Your task to perform on an android device: Clear all items from cart on bestbuy.com. Add acer predator to the cart on bestbuy.com, then select checkout. Image 0: 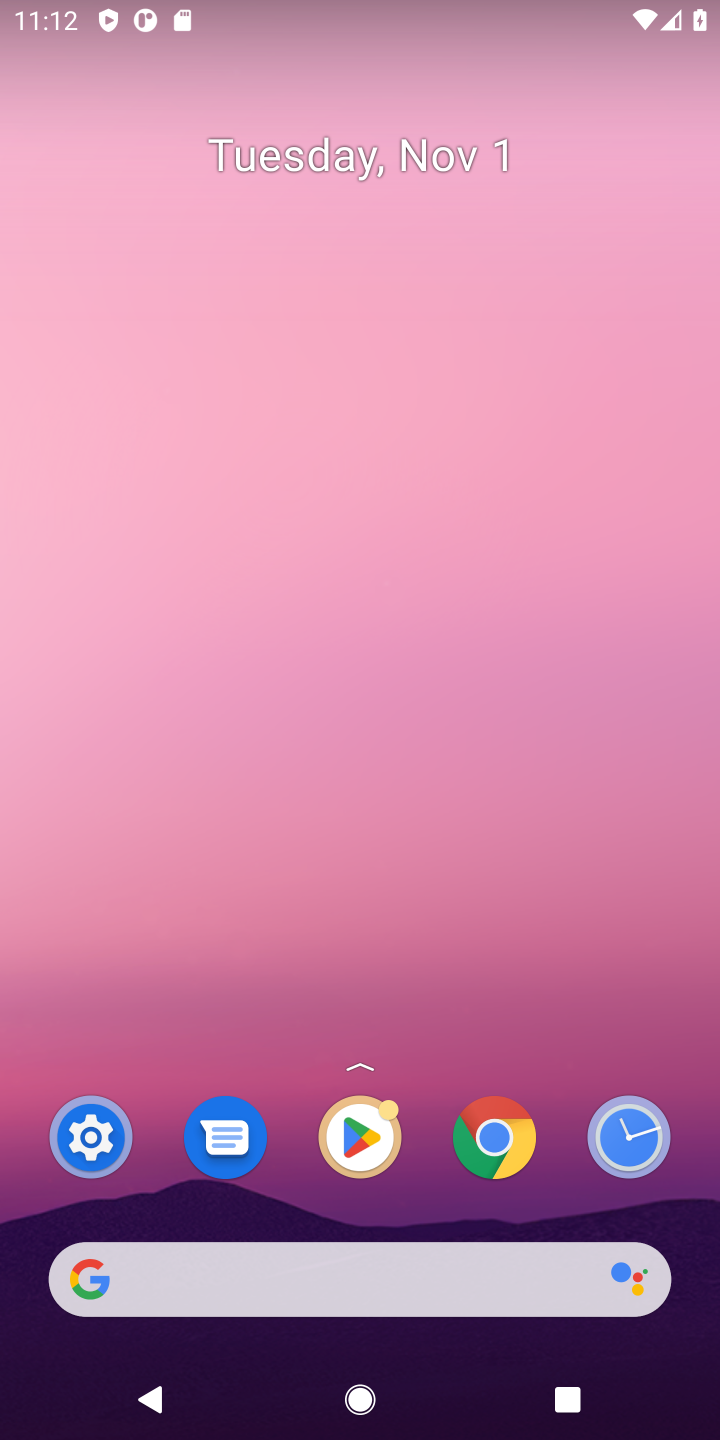
Step 0: click (275, 1279)
Your task to perform on an android device: Clear all items from cart on bestbuy.com. Add acer predator to the cart on bestbuy.com, then select checkout. Image 1: 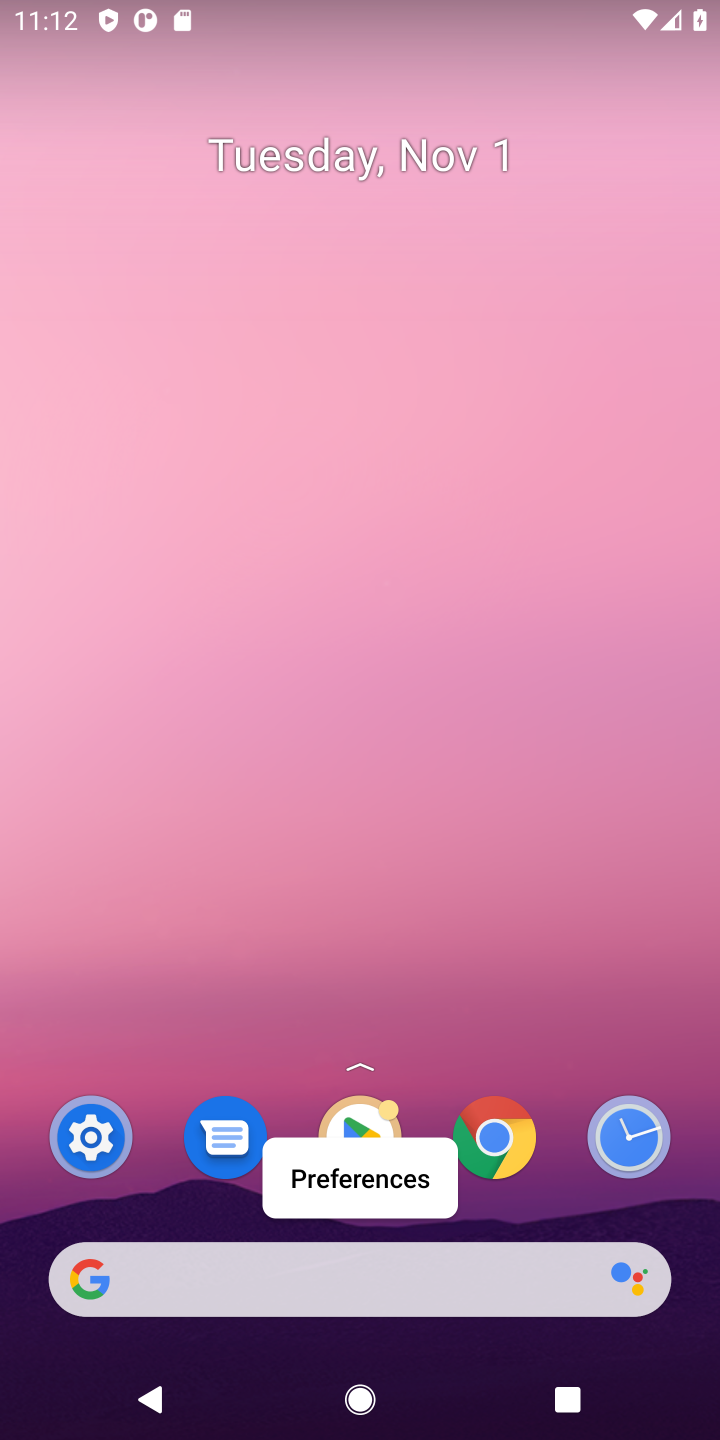
Step 1: click (275, 1279)
Your task to perform on an android device: Clear all items from cart on bestbuy.com. Add acer predator to the cart on bestbuy.com, then select checkout. Image 2: 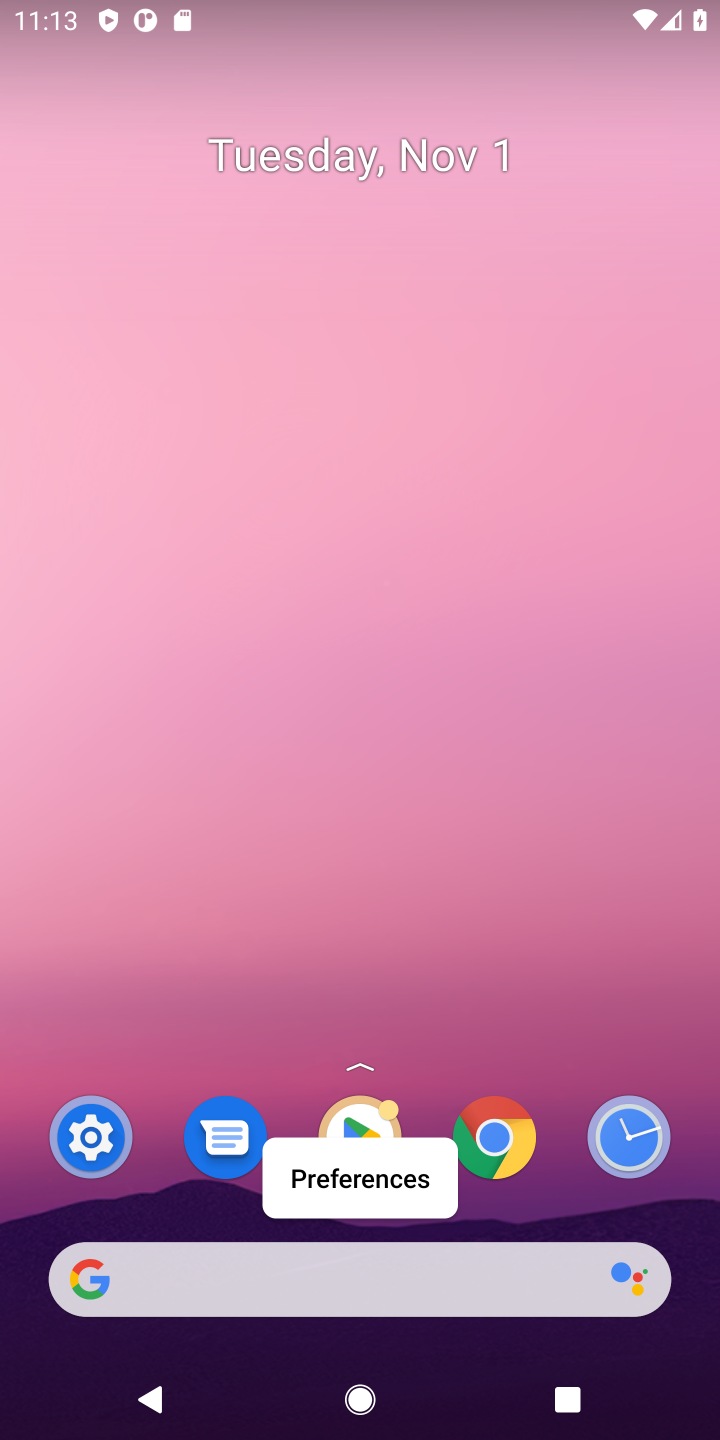
Step 2: click (435, 1244)
Your task to perform on an android device: Clear all items from cart on bestbuy.com. Add acer predator to the cart on bestbuy.com, then select checkout. Image 3: 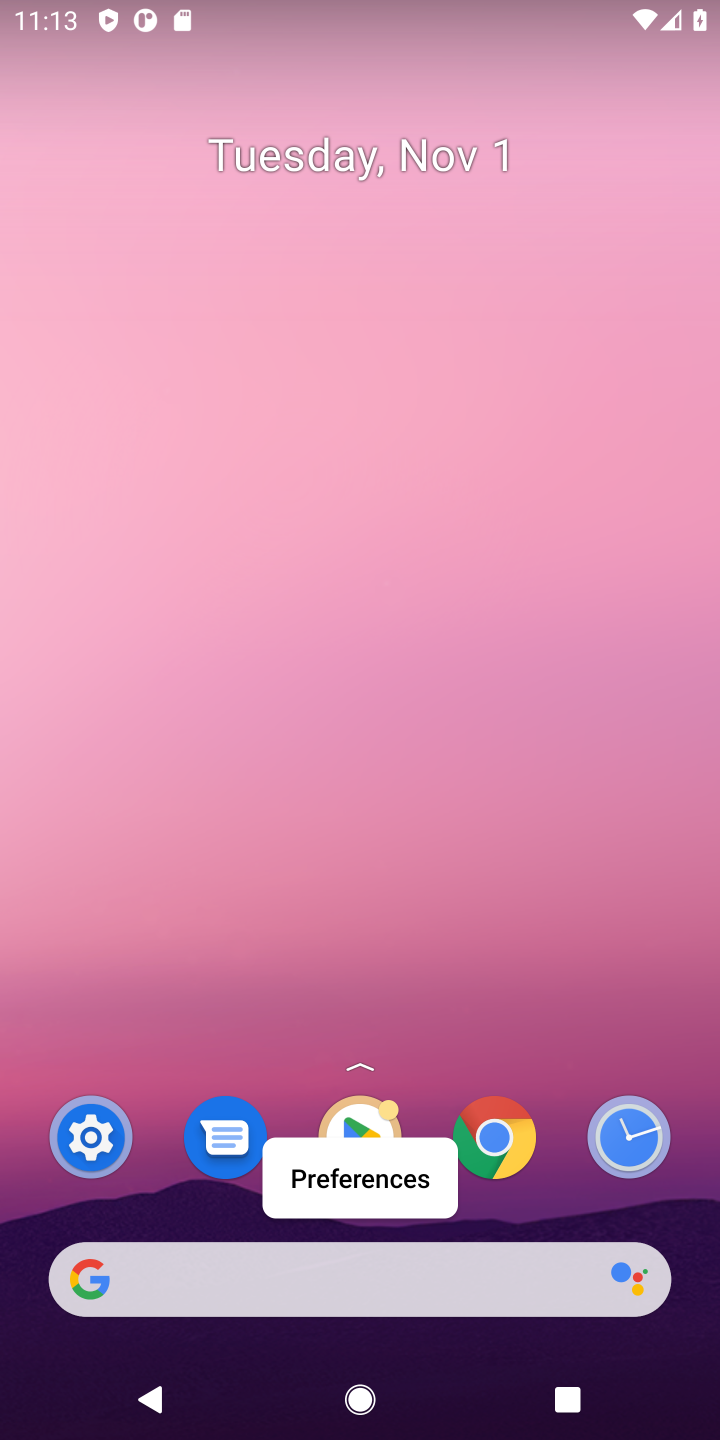
Step 3: click (452, 1265)
Your task to perform on an android device: Clear all items from cart on bestbuy.com. Add acer predator to the cart on bestbuy.com, then select checkout. Image 4: 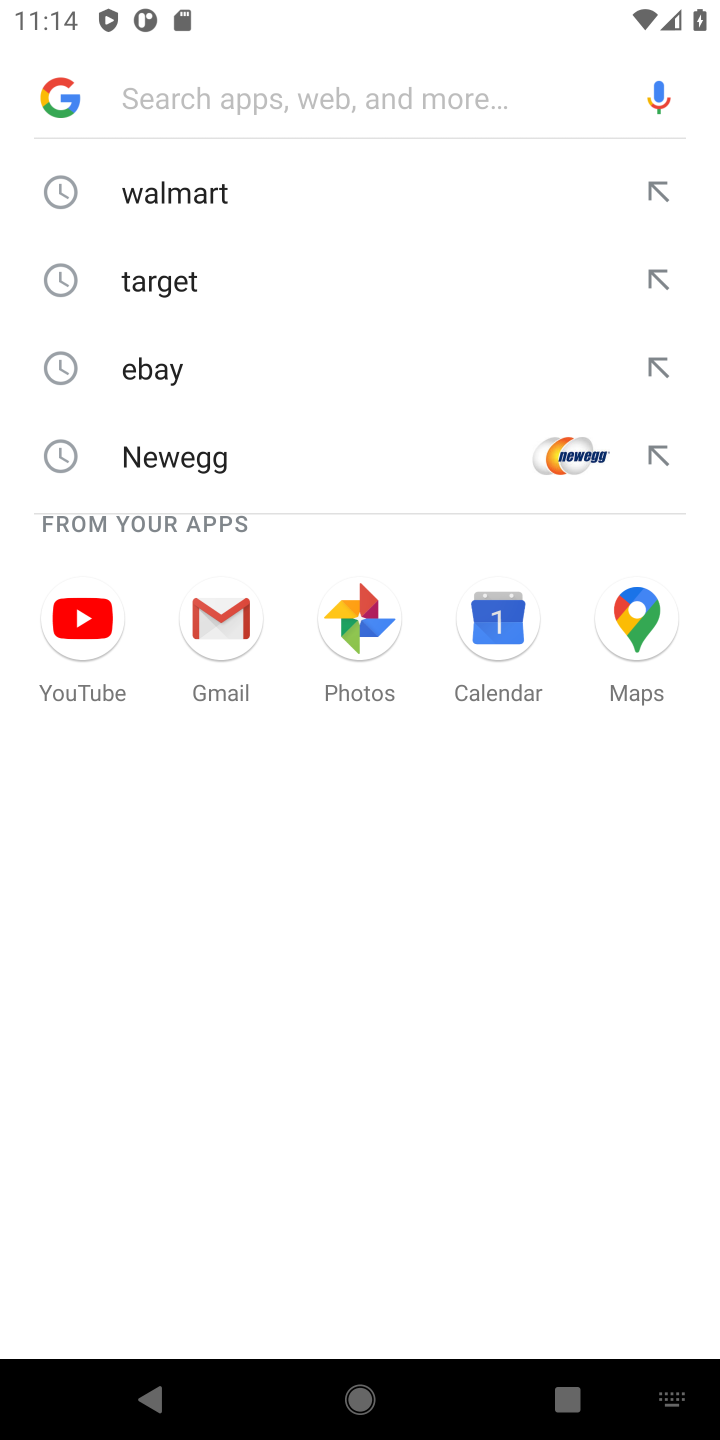
Step 4: type "bestbuy.com."
Your task to perform on an android device: Clear all items from cart on bestbuy.com. Add acer predator to the cart on bestbuy.com, then select checkout. Image 5: 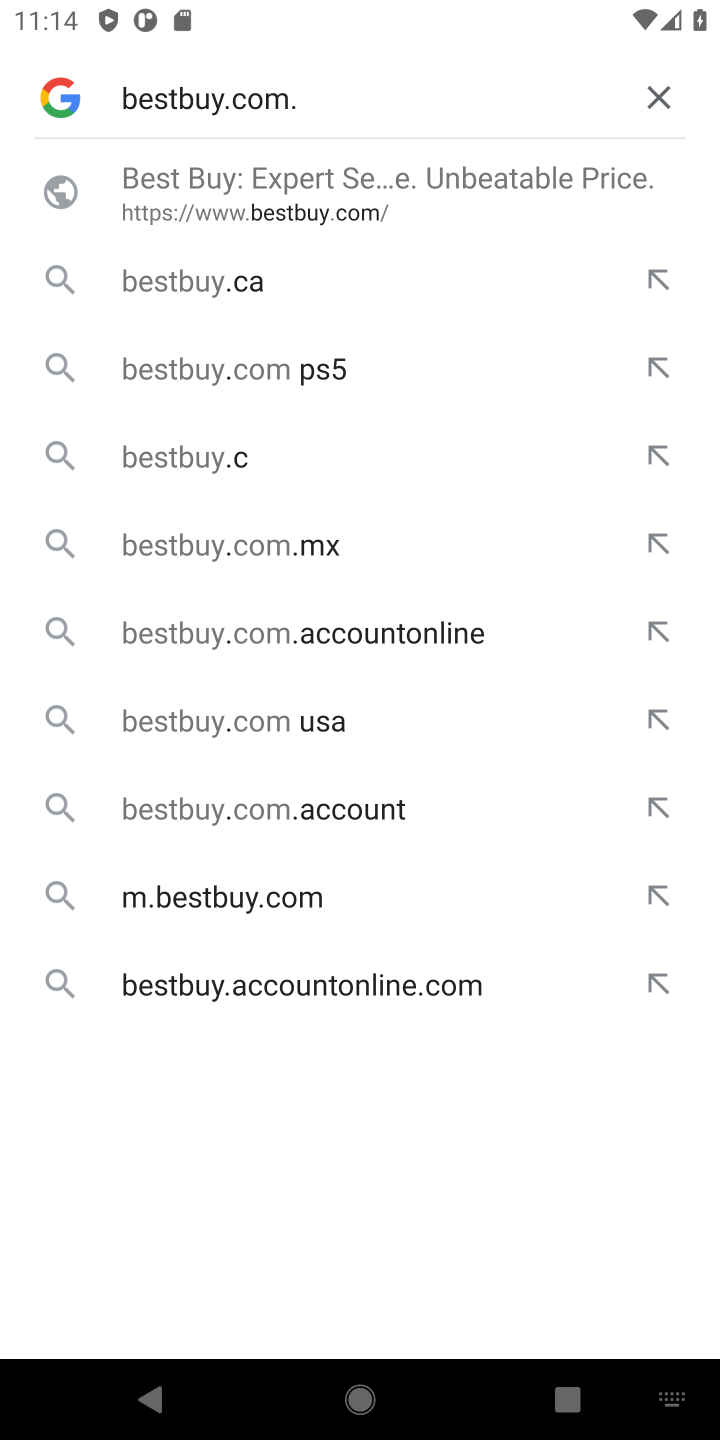
Step 5: type ""
Your task to perform on an android device: Clear all items from cart on bestbuy.com. Add acer predator to the cart on bestbuy.com, then select checkout. Image 6: 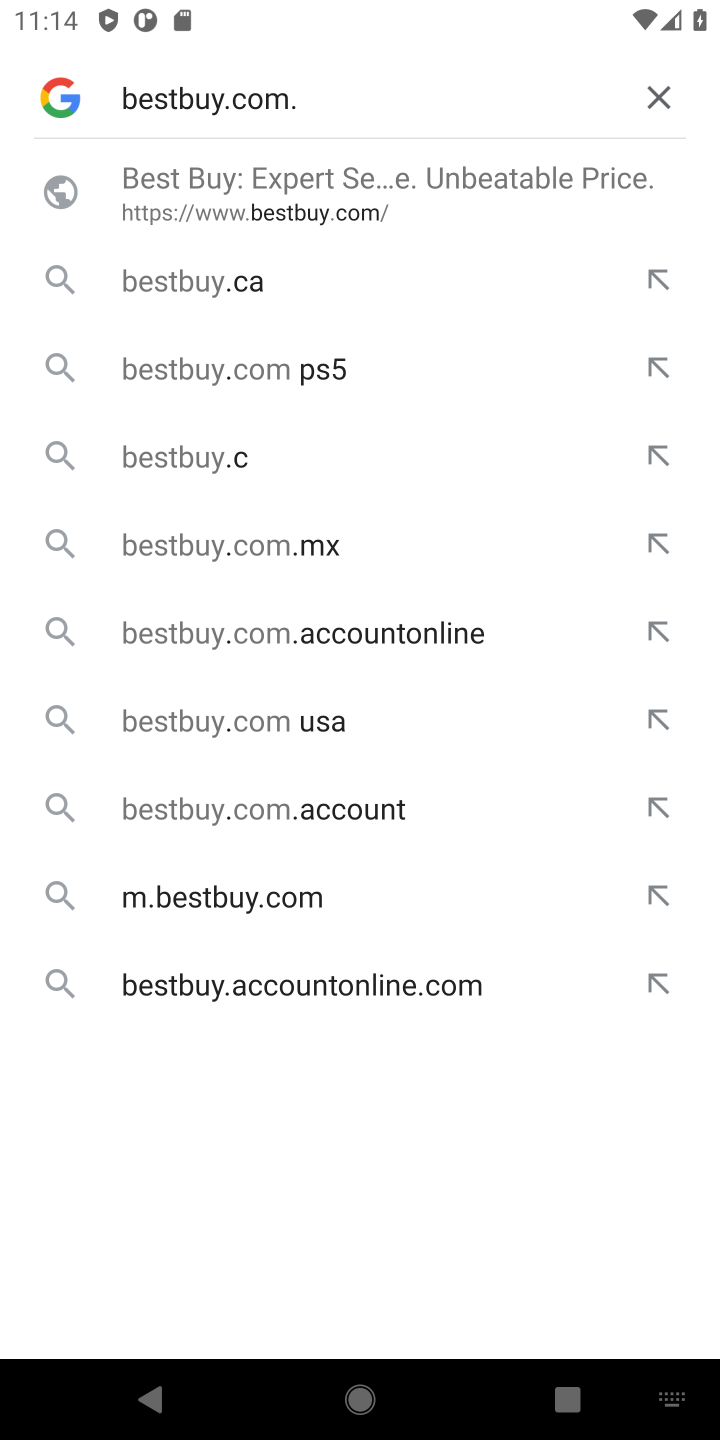
Step 6: press enter
Your task to perform on an android device: Clear all items from cart on bestbuy.com. Add acer predator to the cart on bestbuy.com, then select checkout. Image 7: 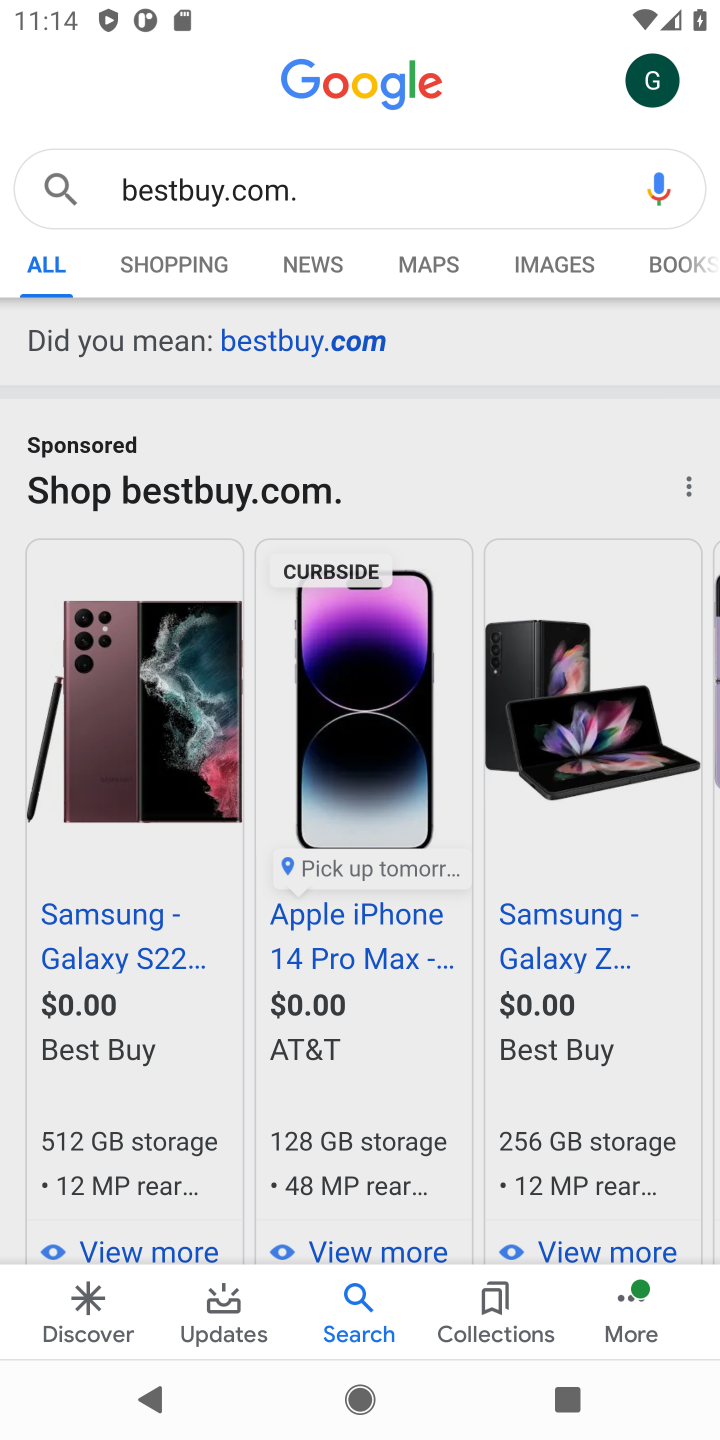
Step 7: drag from (249, 1160) to (330, 361)
Your task to perform on an android device: Clear all items from cart on bestbuy.com. Add acer predator to the cart on bestbuy.com, then select checkout. Image 8: 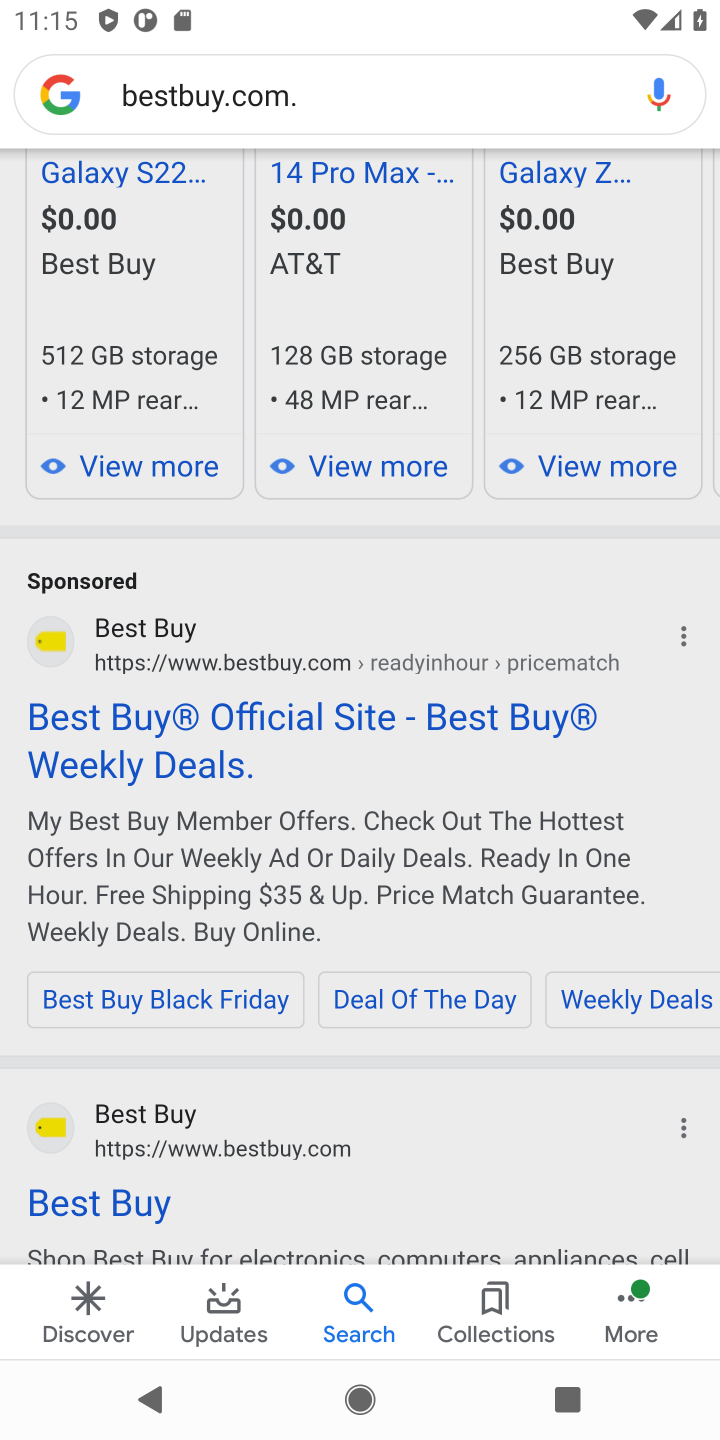
Step 8: click (195, 696)
Your task to perform on an android device: Clear all items from cart on bestbuy.com. Add acer predator to the cart on bestbuy.com, then select checkout. Image 9: 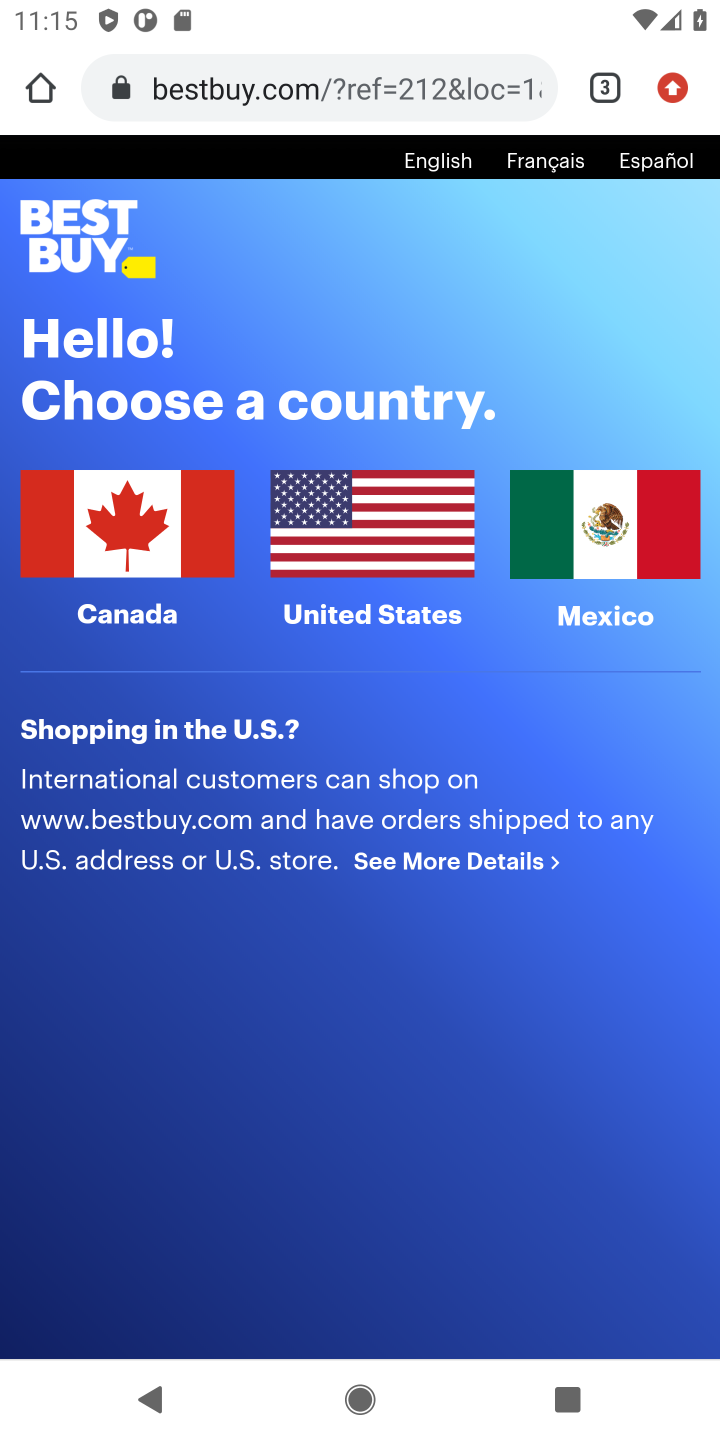
Step 9: click (395, 549)
Your task to perform on an android device: Clear all items from cart on bestbuy.com. Add acer predator to the cart on bestbuy.com, then select checkout. Image 10: 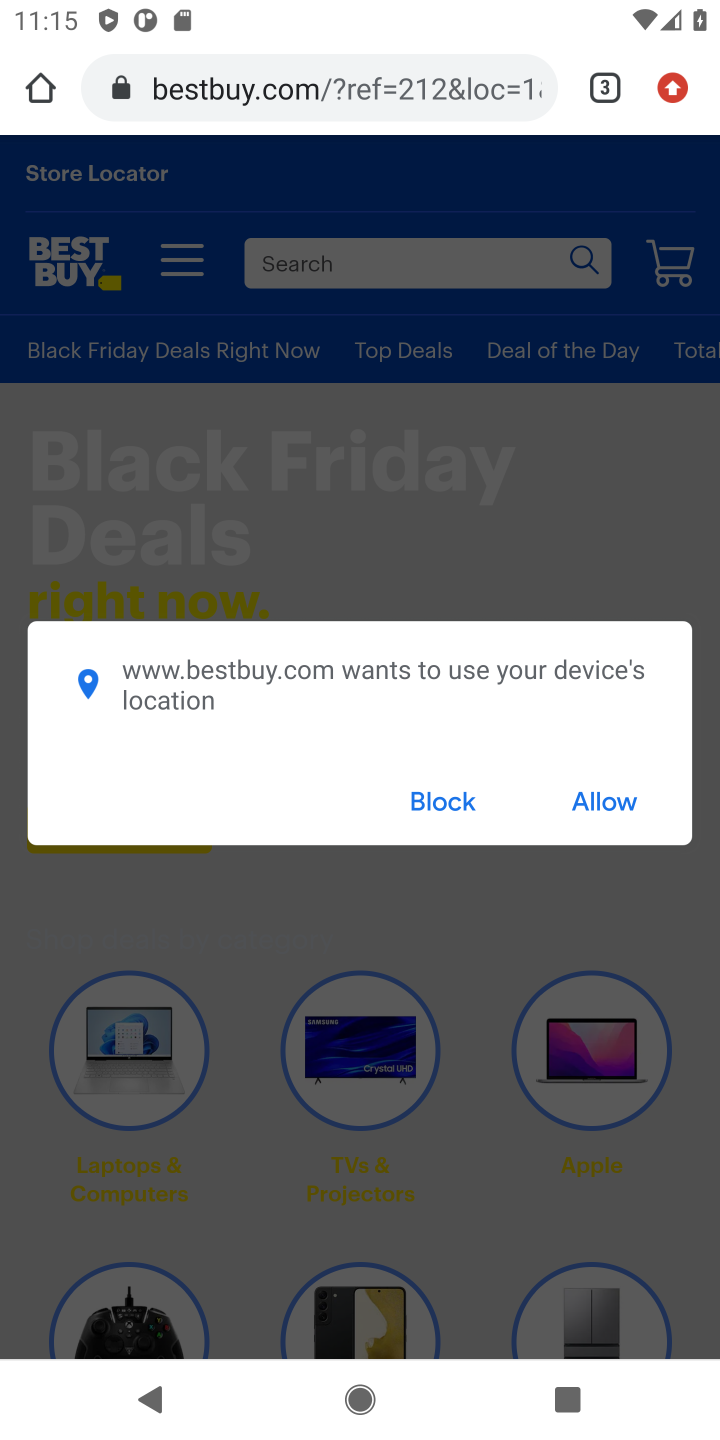
Step 10: click (609, 807)
Your task to perform on an android device: Clear all items from cart on bestbuy.com. Add acer predator to the cart on bestbuy.com, then select checkout. Image 11: 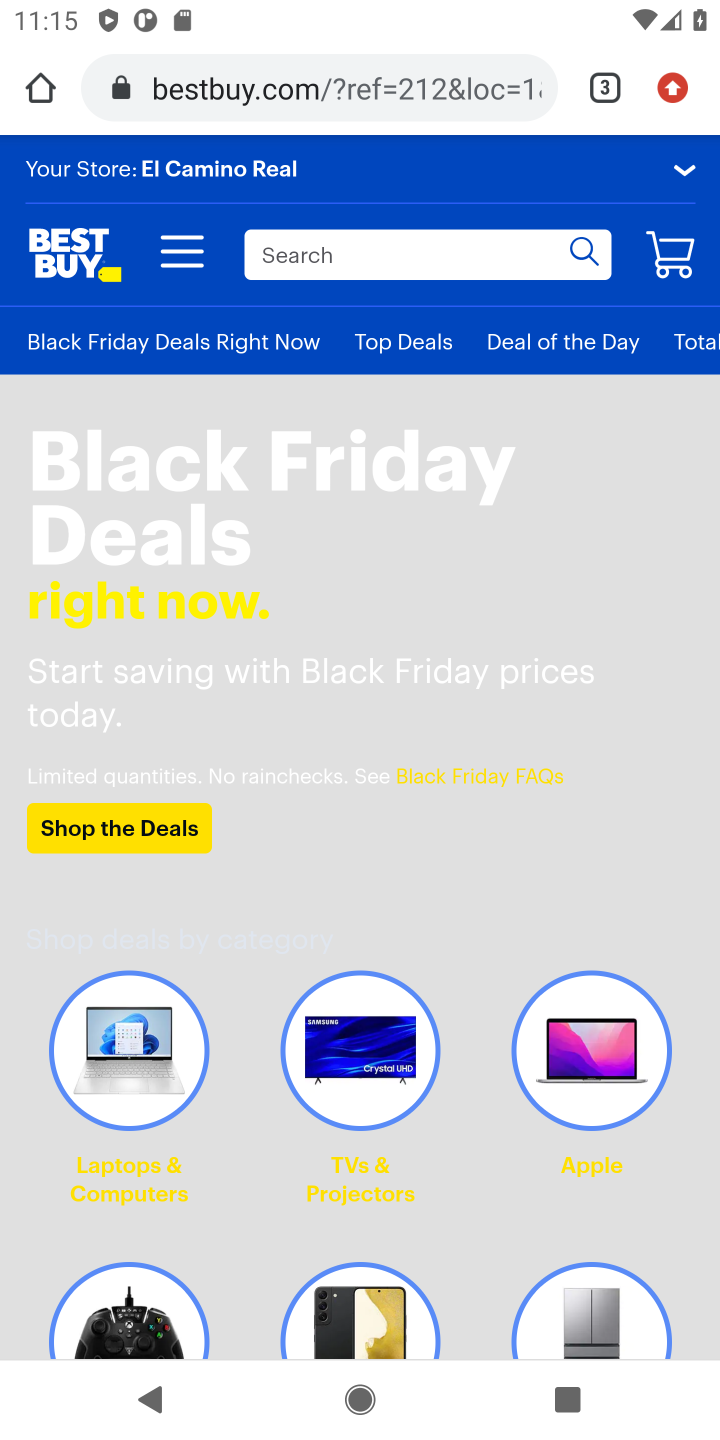
Step 11: click (352, 271)
Your task to perform on an android device: Clear all items from cart on bestbuy.com. Add acer predator to the cart on bestbuy.com, then select checkout. Image 12: 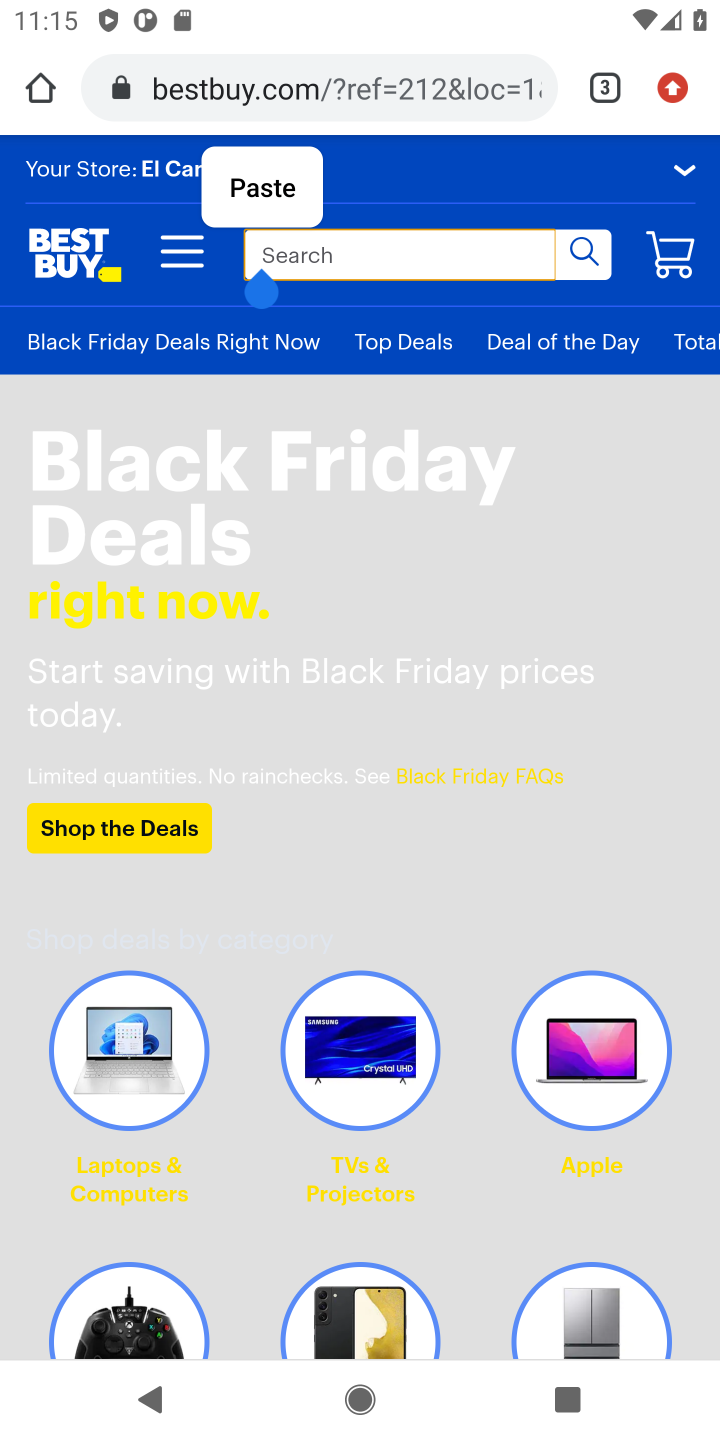
Step 12: type "acer predator"
Your task to perform on an android device: Clear all items from cart on bestbuy.com. Add acer predator to the cart on bestbuy.com, then select checkout. Image 13: 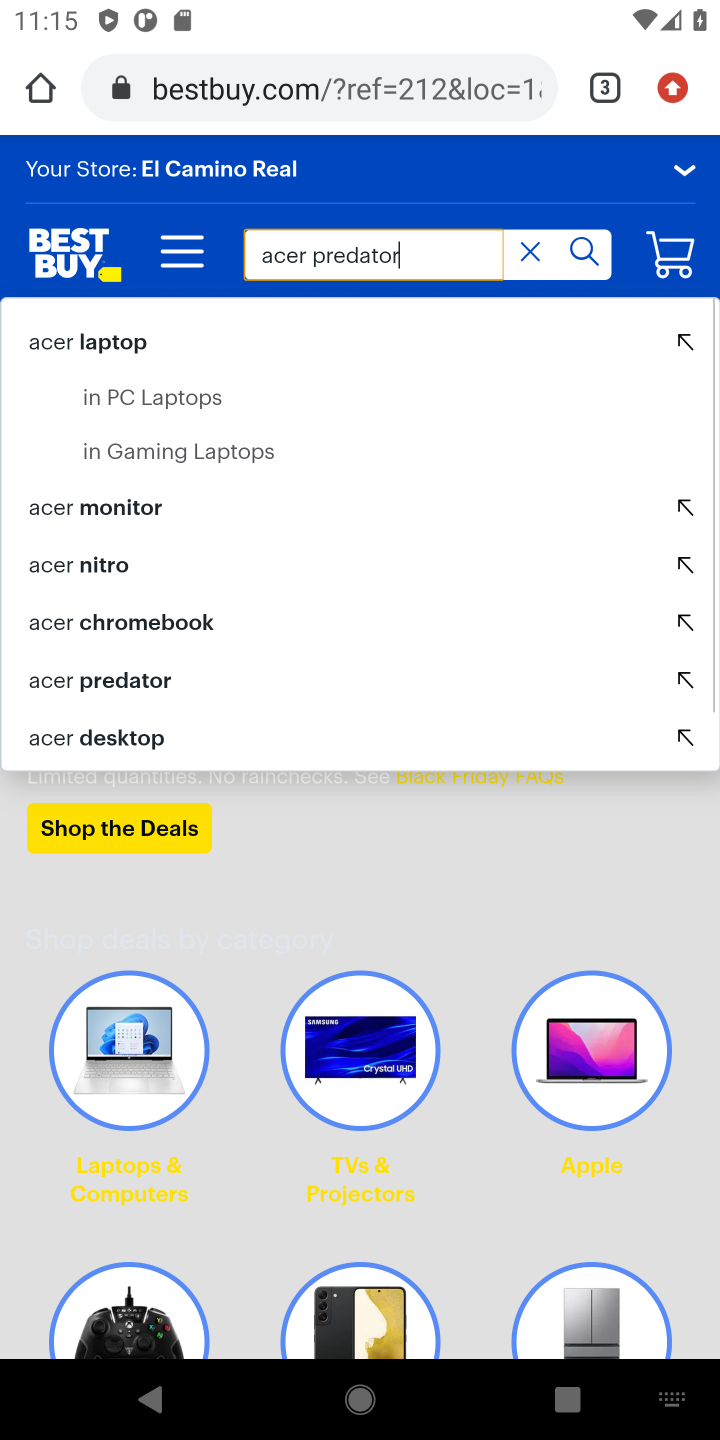
Step 13: press enter
Your task to perform on an android device: Clear all items from cart on bestbuy.com. Add acer predator to the cart on bestbuy.com, then select checkout. Image 14: 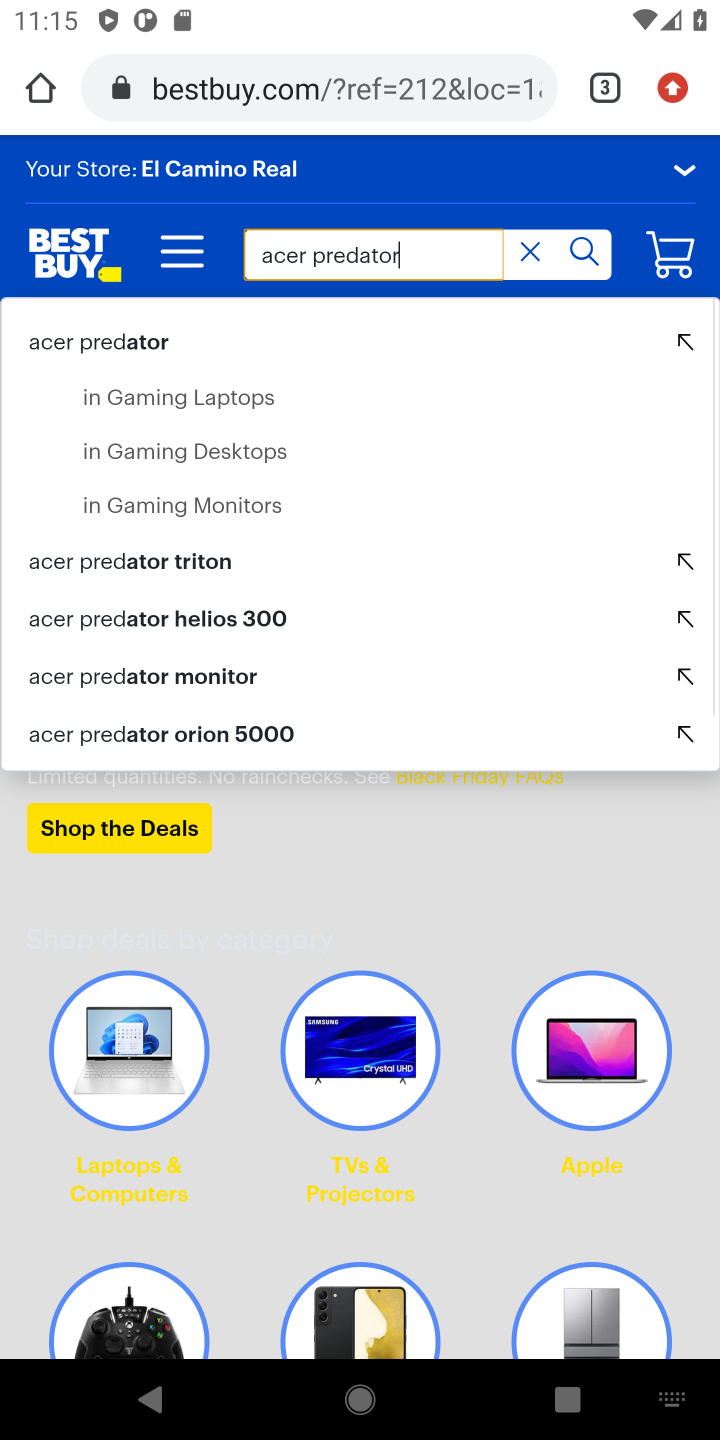
Step 14: type ""
Your task to perform on an android device: Clear all items from cart on bestbuy.com. Add acer predator to the cart on bestbuy.com, then select checkout. Image 15: 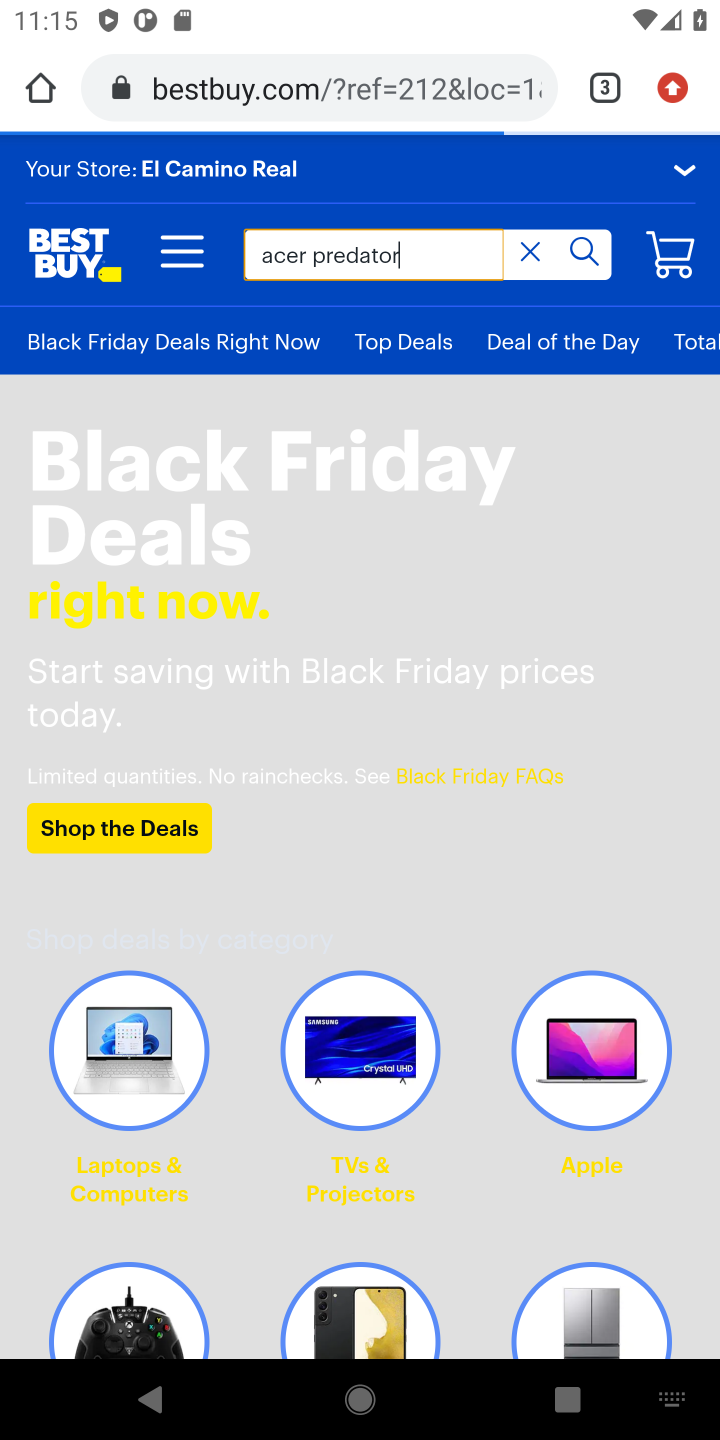
Step 15: click (599, 247)
Your task to perform on an android device: Clear all items from cart on bestbuy.com. Add acer predator to the cart on bestbuy.com, then select checkout. Image 16: 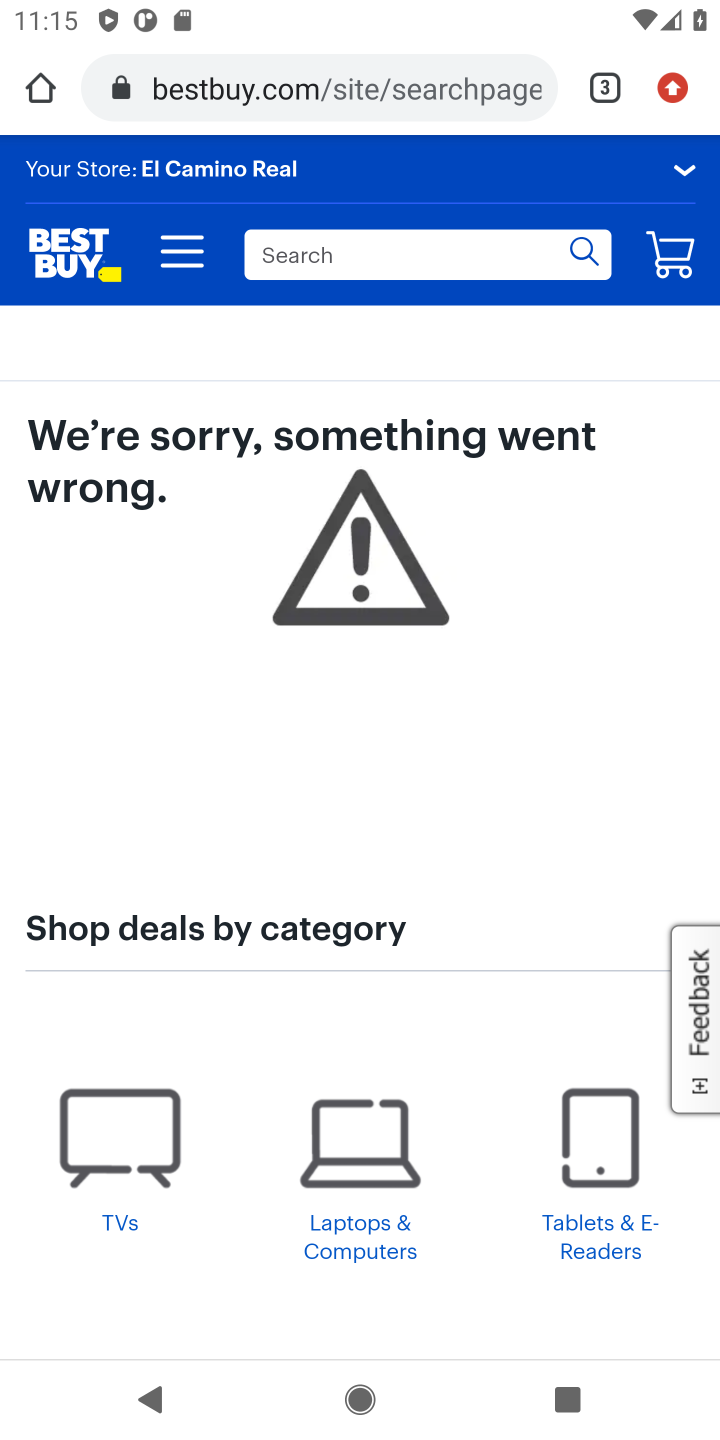
Step 16: task complete